Your task to perform on an android device: turn on data saver in the chrome app Image 0: 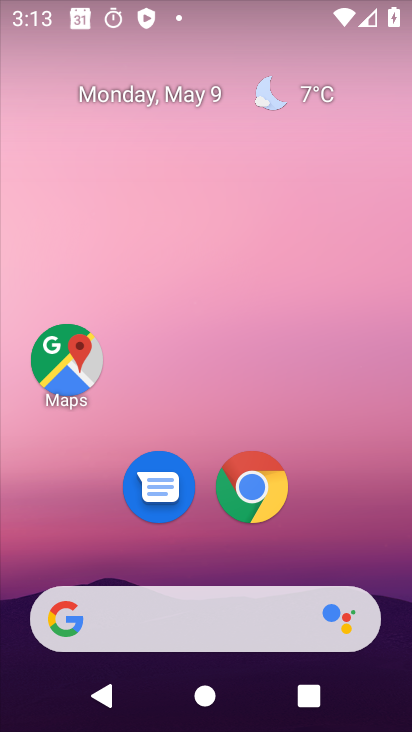
Step 0: click (270, 493)
Your task to perform on an android device: turn on data saver in the chrome app Image 1: 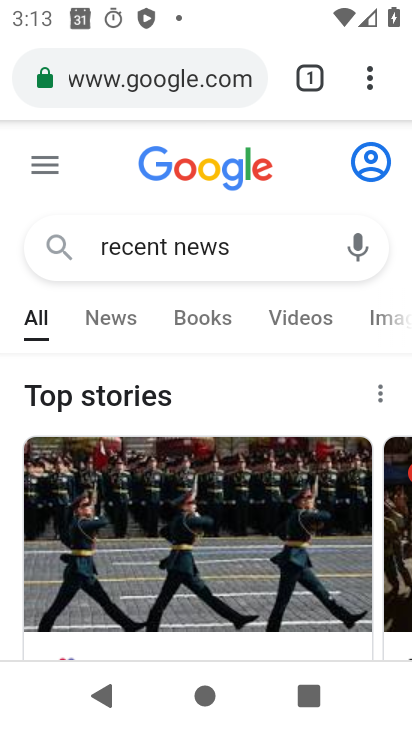
Step 1: drag from (363, 82) to (221, 551)
Your task to perform on an android device: turn on data saver in the chrome app Image 2: 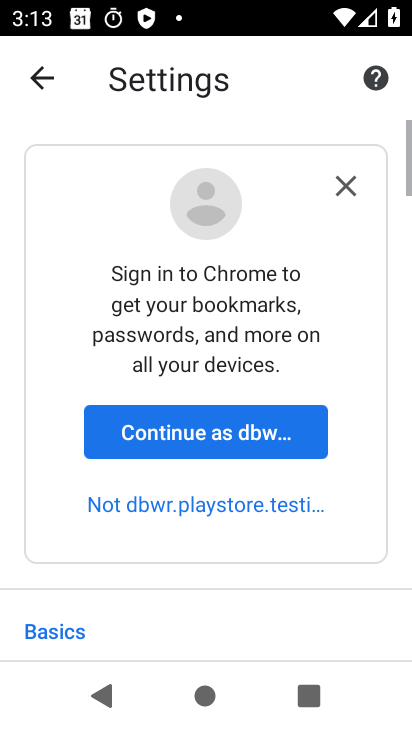
Step 2: drag from (267, 593) to (240, 16)
Your task to perform on an android device: turn on data saver in the chrome app Image 3: 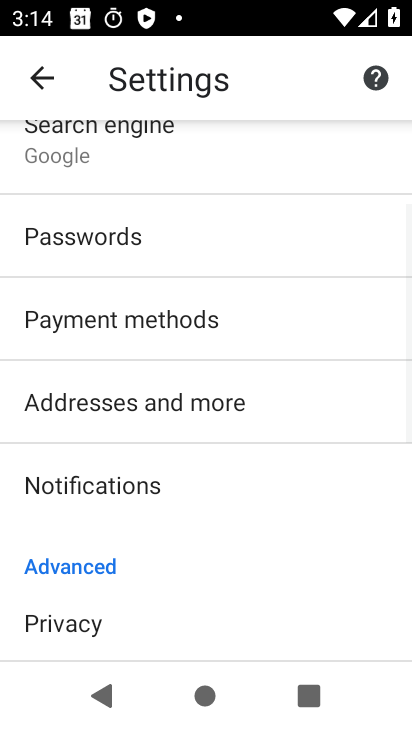
Step 3: drag from (256, 582) to (261, 41)
Your task to perform on an android device: turn on data saver in the chrome app Image 4: 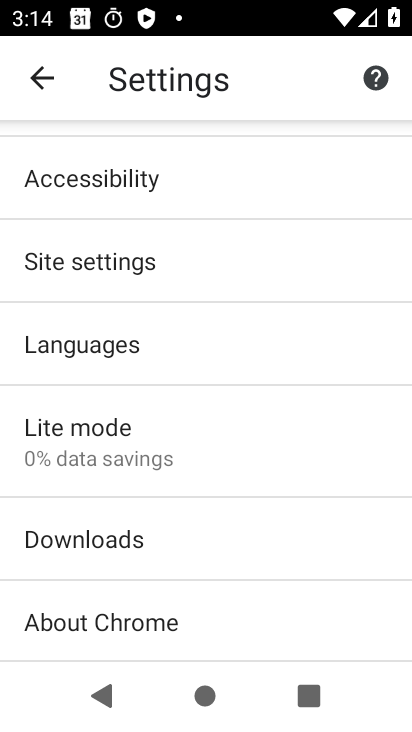
Step 4: click (174, 451)
Your task to perform on an android device: turn on data saver in the chrome app Image 5: 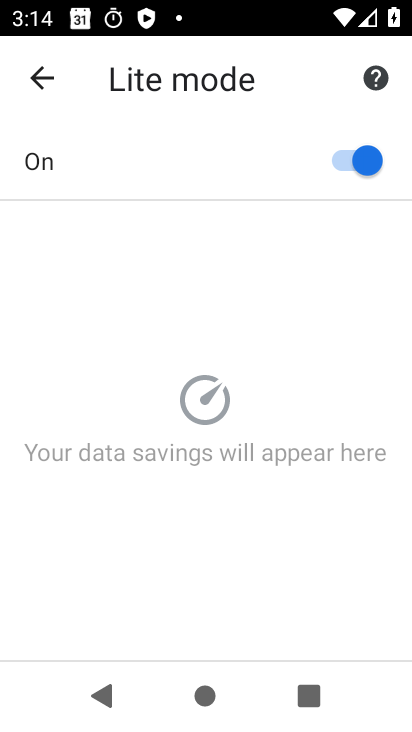
Step 5: task complete